Your task to perform on an android device: find photos in the google photos app Image 0: 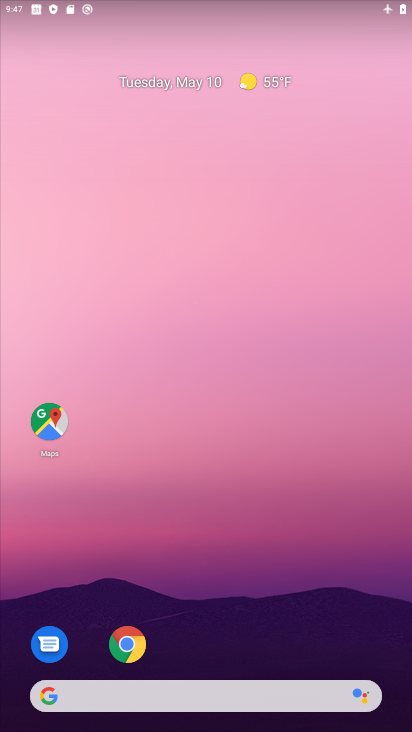
Step 0: drag from (182, 615) to (206, 285)
Your task to perform on an android device: find photos in the google photos app Image 1: 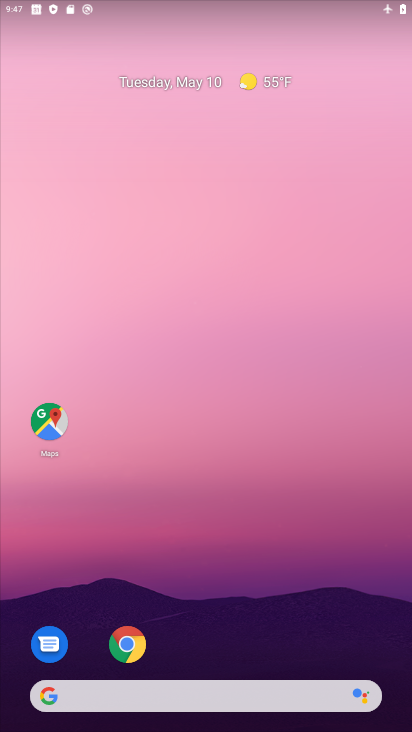
Step 1: drag from (265, 646) to (278, 174)
Your task to perform on an android device: find photos in the google photos app Image 2: 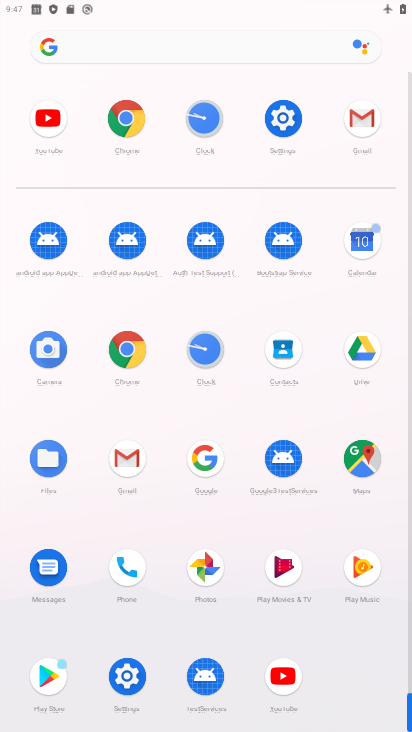
Step 2: click (212, 588)
Your task to perform on an android device: find photos in the google photos app Image 3: 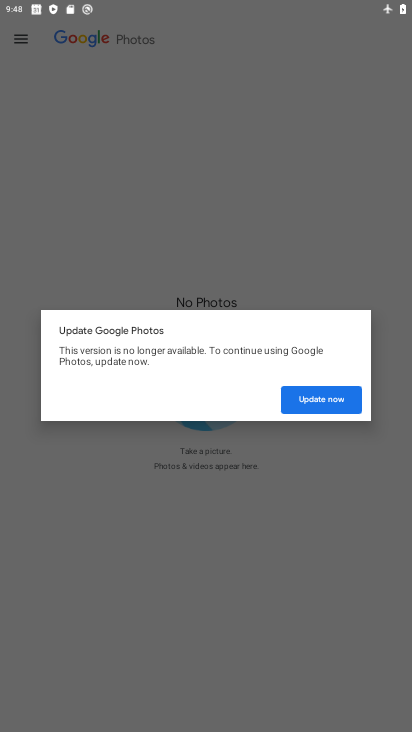
Step 3: task complete